Your task to perform on an android device: Open the web browser Image 0: 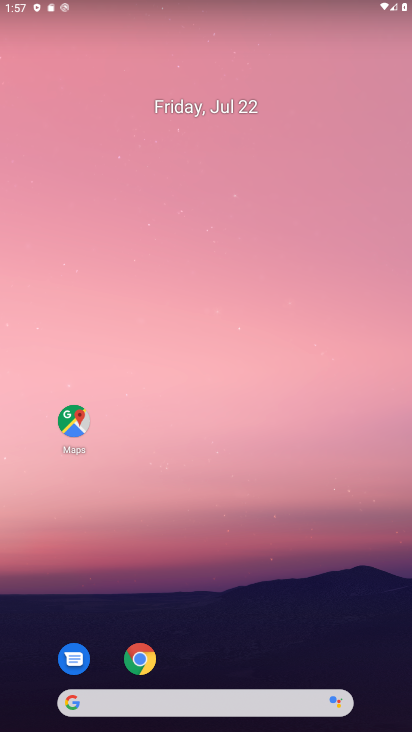
Step 0: click (129, 674)
Your task to perform on an android device: Open the web browser Image 1: 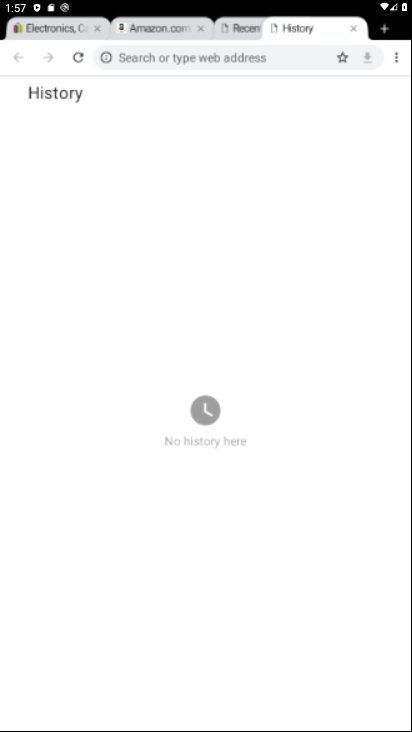
Step 1: task complete